Your task to perform on an android device: open a new tab in the chrome app Image 0: 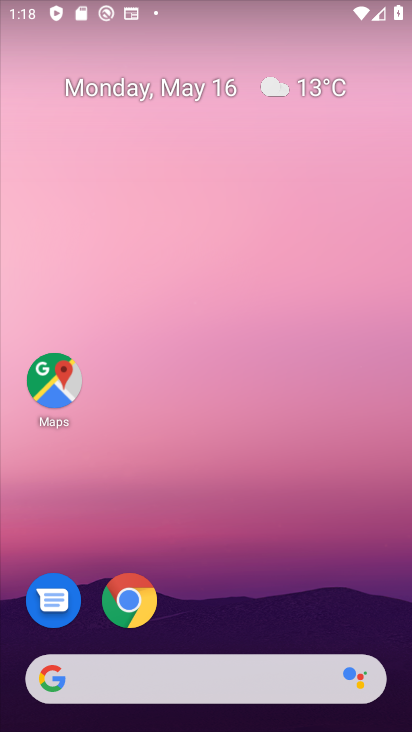
Step 0: click (143, 606)
Your task to perform on an android device: open a new tab in the chrome app Image 1: 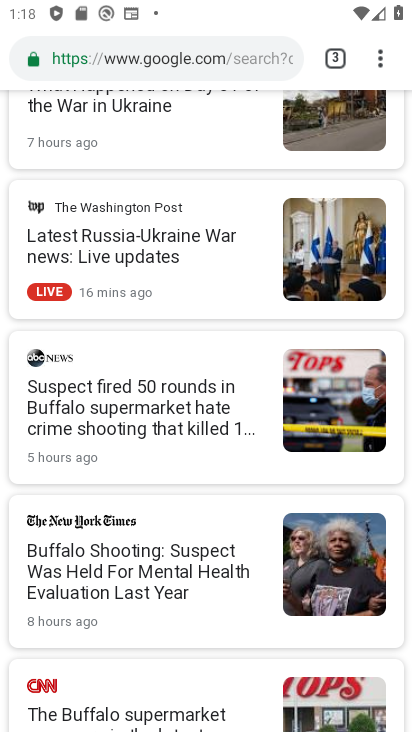
Step 1: click (378, 57)
Your task to perform on an android device: open a new tab in the chrome app Image 2: 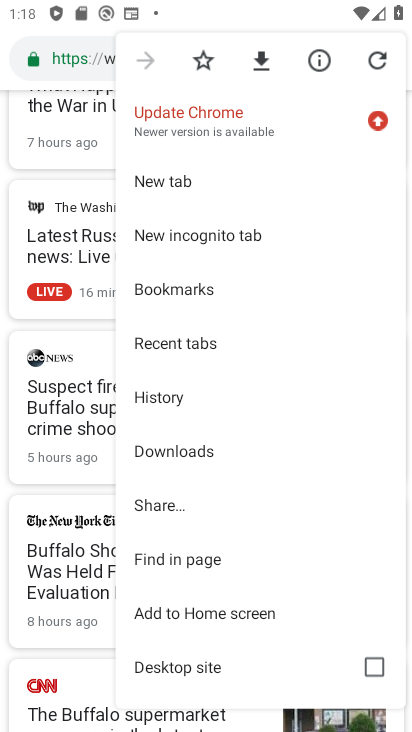
Step 2: click (161, 180)
Your task to perform on an android device: open a new tab in the chrome app Image 3: 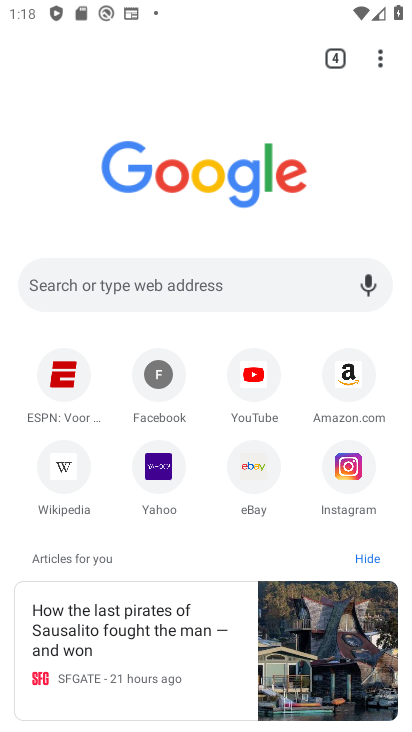
Step 3: task complete